Your task to perform on an android device: turn off data saver in the chrome app Image 0: 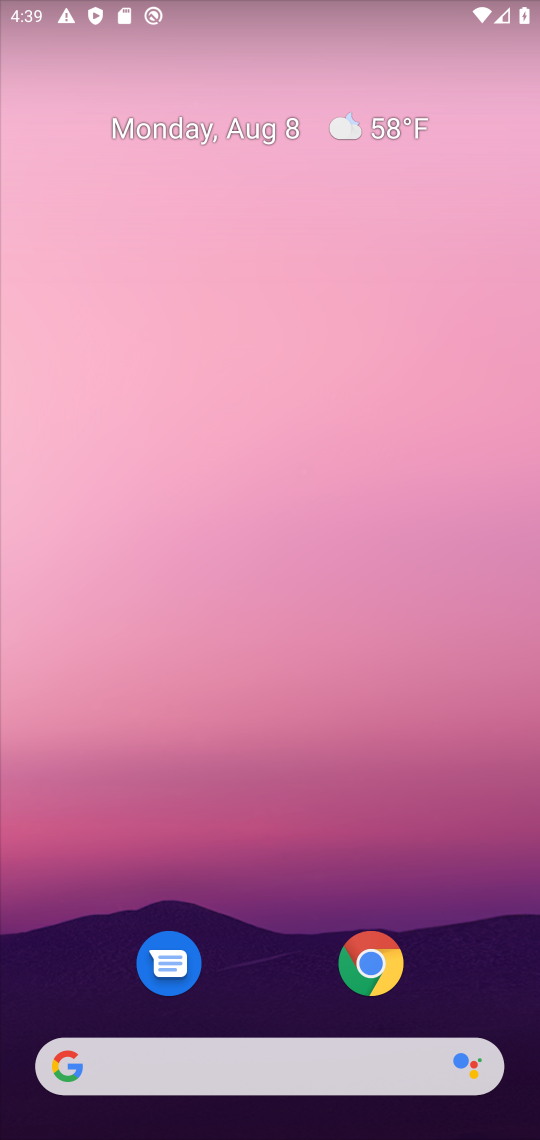
Step 0: click (336, 963)
Your task to perform on an android device: turn off data saver in the chrome app Image 1: 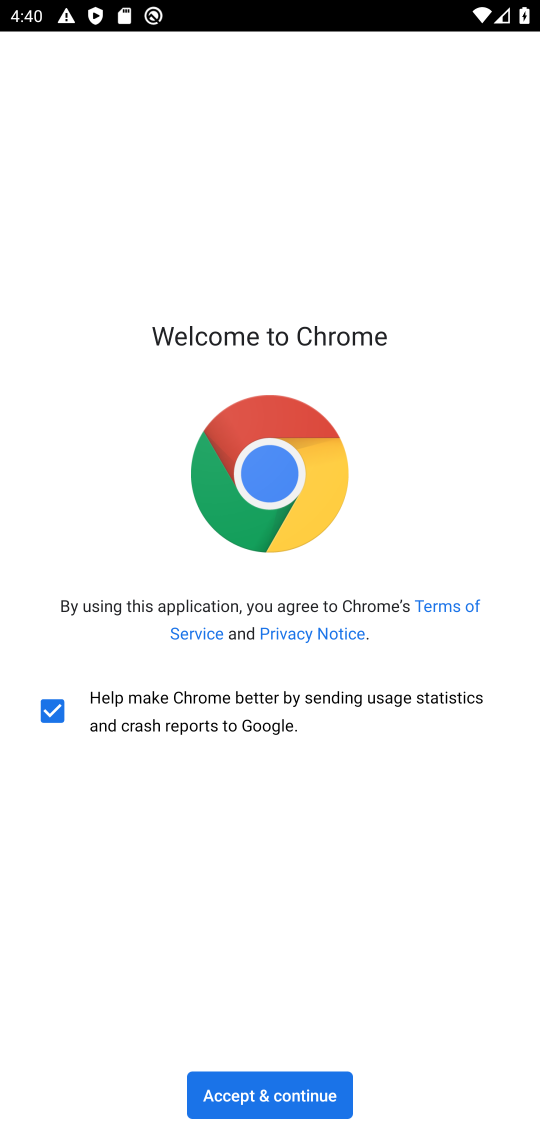
Step 1: click (312, 1090)
Your task to perform on an android device: turn off data saver in the chrome app Image 2: 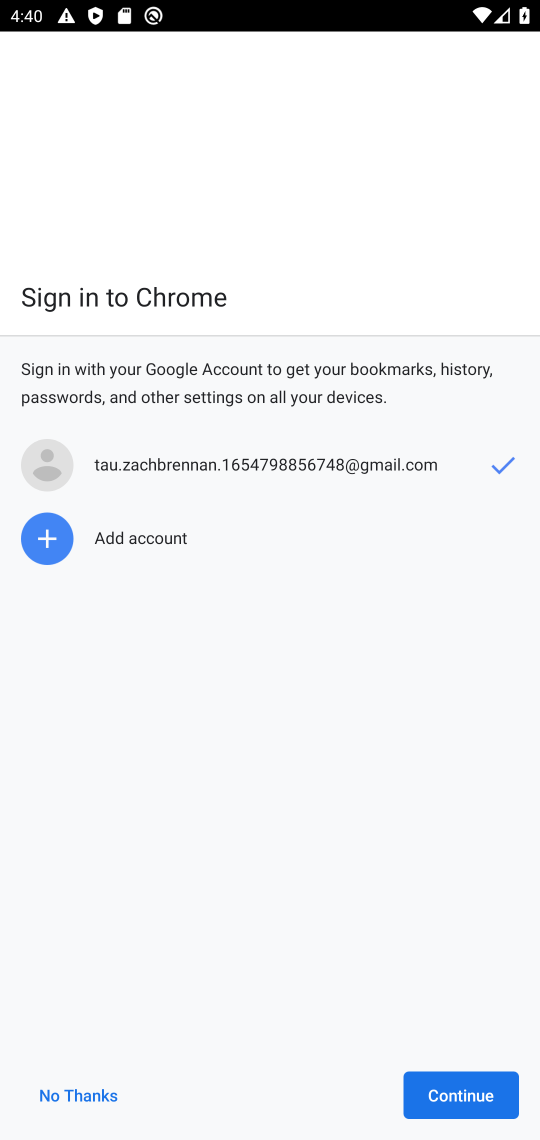
Step 2: click (476, 1090)
Your task to perform on an android device: turn off data saver in the chrome app Image 3: 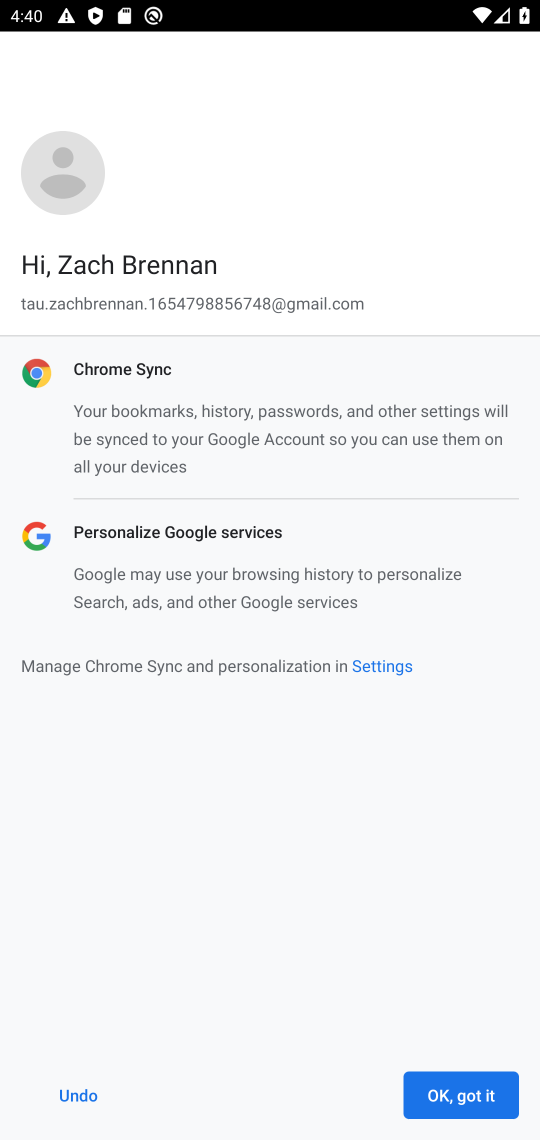
Step 3: click (461, 1073)
Your task to perform on an android device: turn off data saver in the chrome app Image 4: 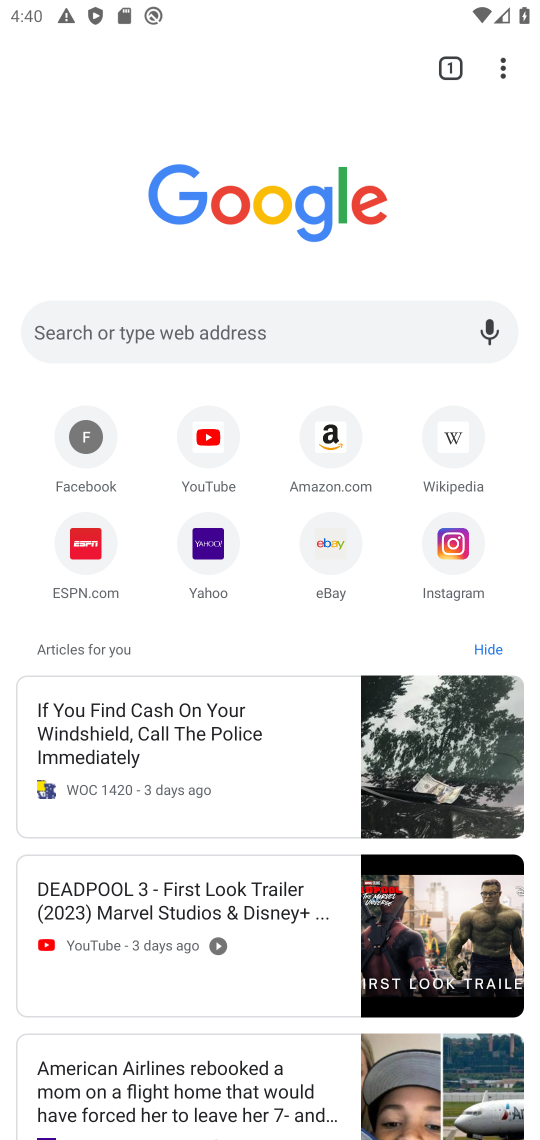
Step 4: click (508, 67)
Your task to perform on an android device: turn off data saver in the chrome app Image 5: 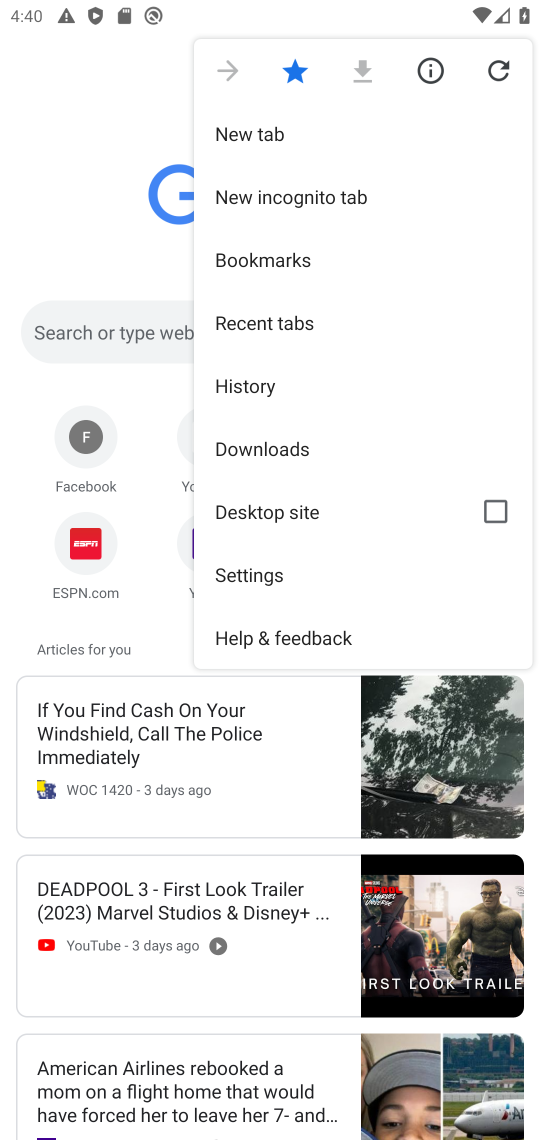
Step 5: click (275, 571)
Your task to perform on an android device: turn off data saver in the chrome app Image 6: 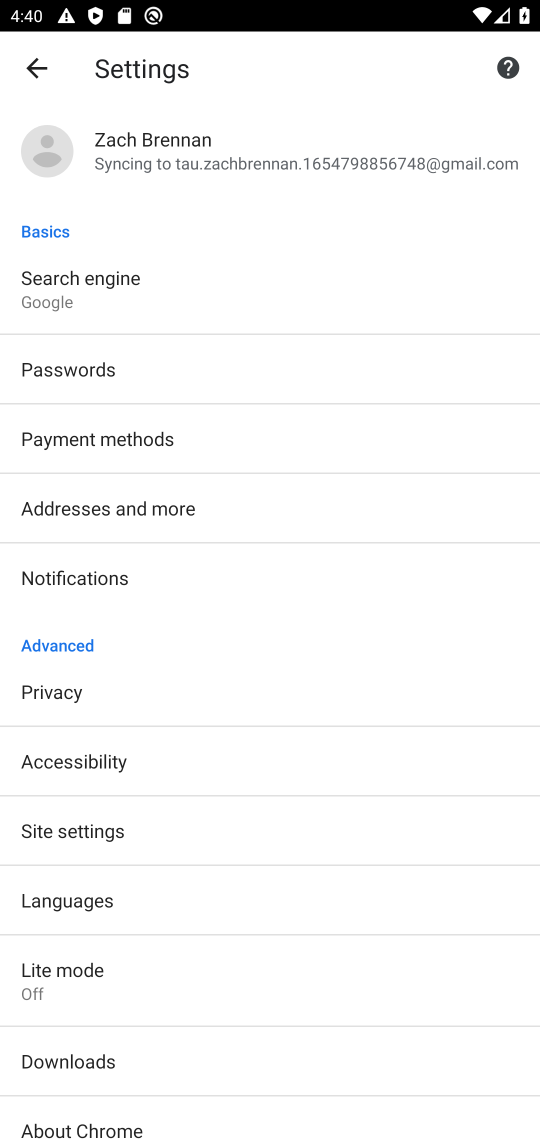
Step 6: drag from (190, 907) to (148, 332)
Your task to perform on an android device: turn off data saver in the chrome app Image 7: 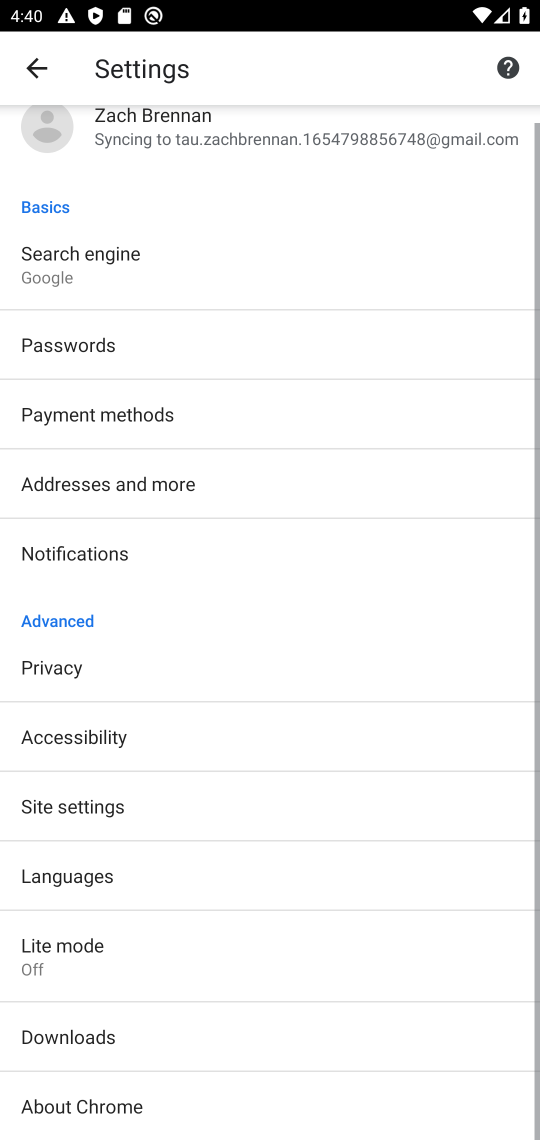
Step 7: click (107, 933)
Your task to perform on an android device: turn off data saver in the chrome app Image 8: 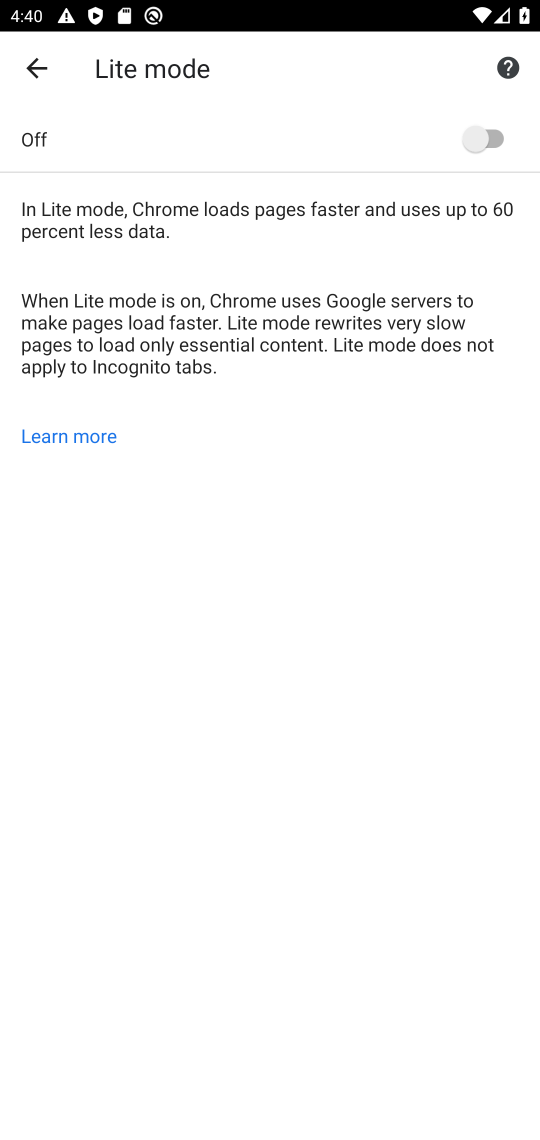
Step 8: task complete